Your task to perform on an android device: Open my contact list Image 0: 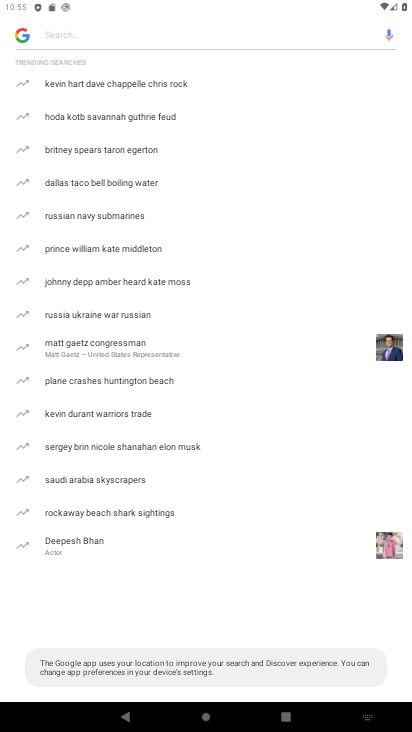
Step 0: press home button
Your task to perform on an android device: Open my contact list Image 1: 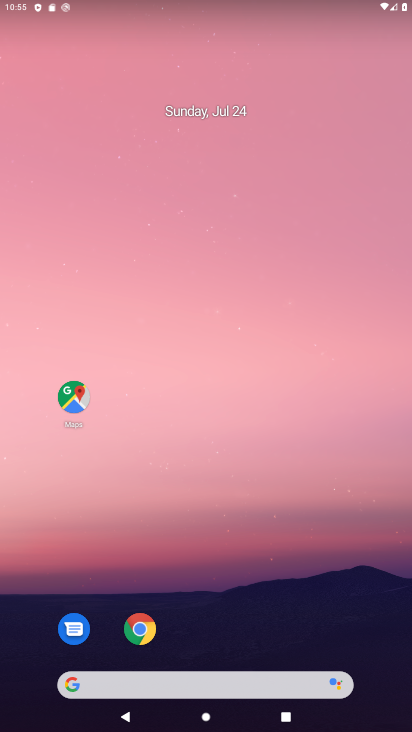
Step 1: drag from (214, 603) to (336, 6)
Your task to perform on an android device: Open my contact list Image 2: 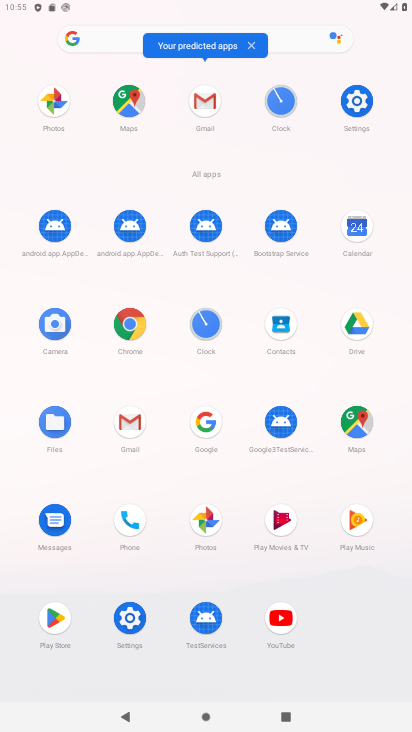
Step 2: click (283, 337)
Your task to perform on an android device: Open my contact list Image 3: 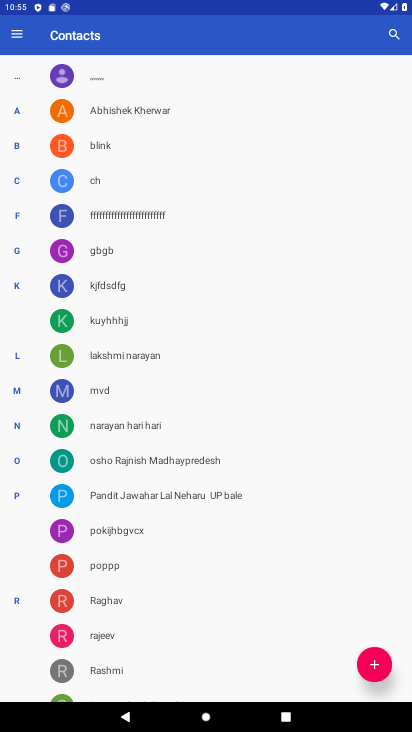
Step 3: task complete